Your task to perform on an android device: What is the recent news? Image 0: 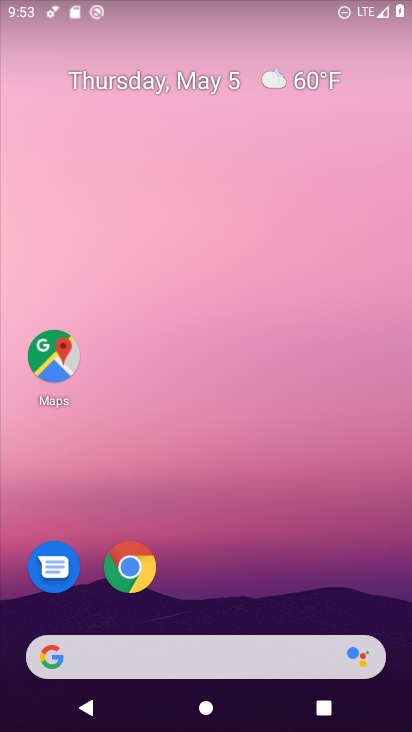
Step 0: drag from (3, 268) to (366, 260)
Your task to perform on an android device: What is the recent news? Image 1: 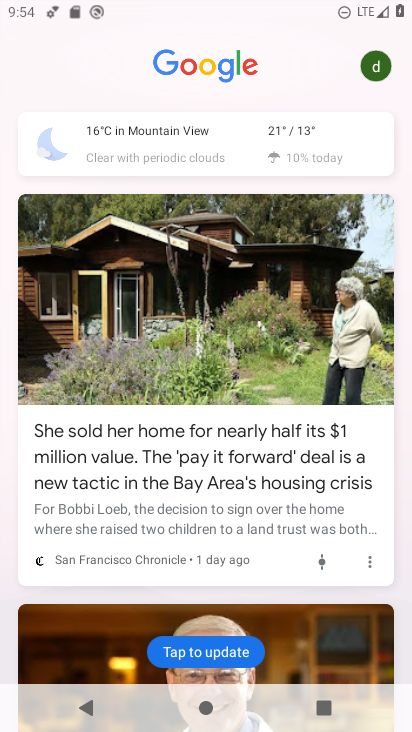
Step 1: task complete